Your task to perform on an android device: Open calendar and show me the first week of next month Image 0: 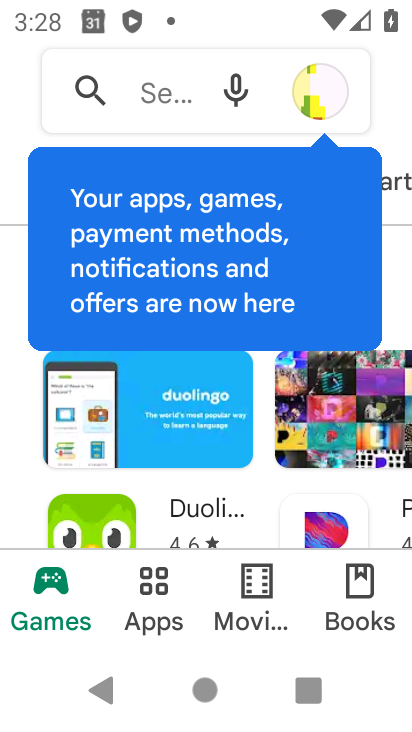
Step 0: press home button
Your task to perform on an android device: Open calendar and show me the first week of next month Image 1: 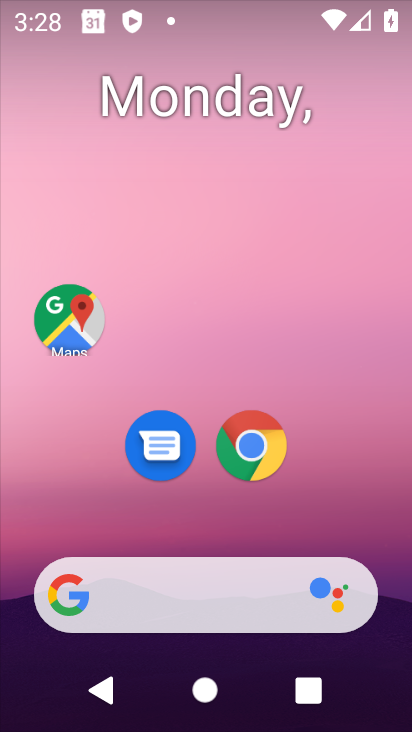
Step 1: drag from (364, 516) to (405, 85)
Your task to perform on an android device: Open calendar and show me the first week of next month Image 2: 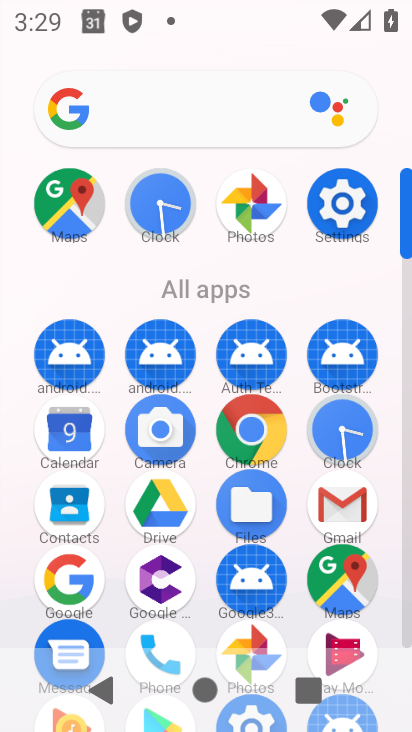
Step 2: drag from (295, 616) to (324, 428)
Your task to perform on an android device: Open calendar and show me the first week of next month Image 3: 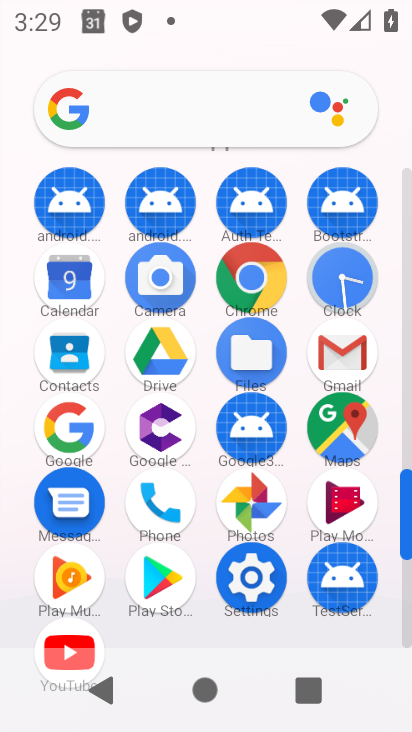
Step 3: click (81, 296)
Your task to perform on an android device: Open calendar and show me the first week of next month Image 4: 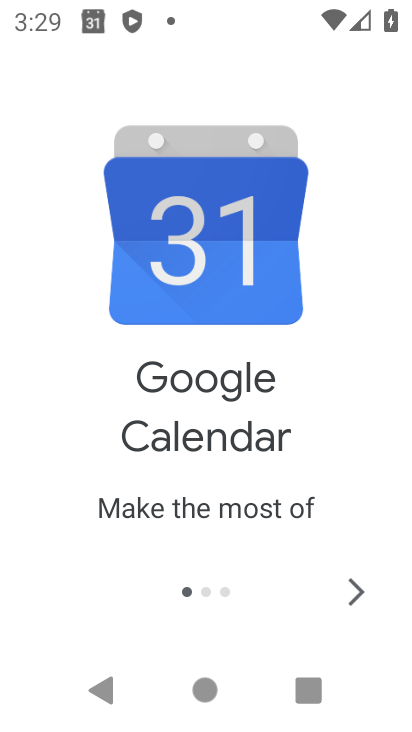
Step 4: click (339, 604)
Your task to perform on an android device: Open calendar and show me the first week of next month Image 5: 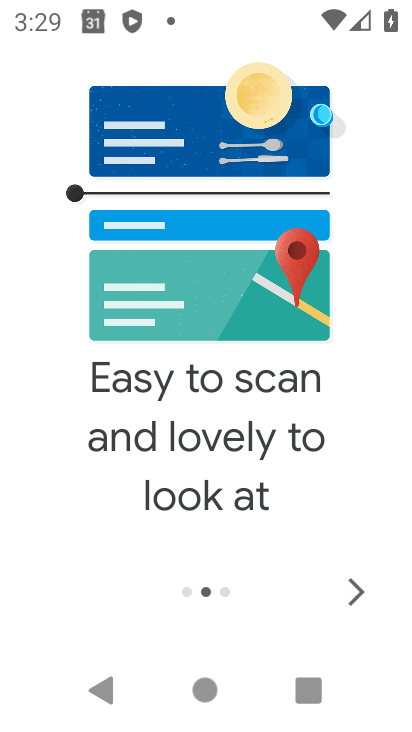
Step 5: click (339, 604)
Your task to perform on an android device: Open calendar and show me the first week of next month Image 6: 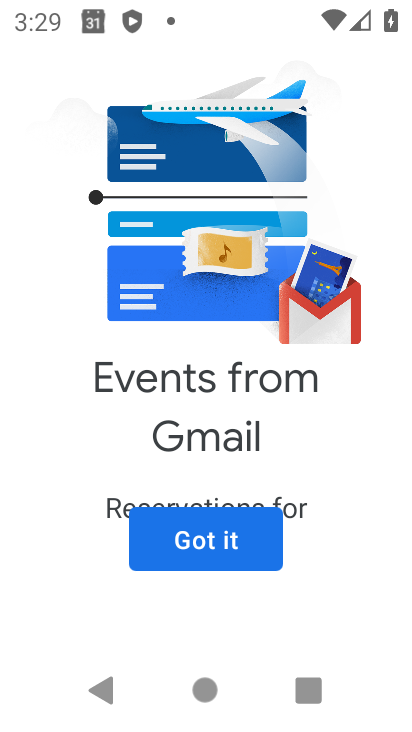
Step 6: click (257, 554)
Your task to perform on an android device: Open calendar and show me the first week of next month Image 7: 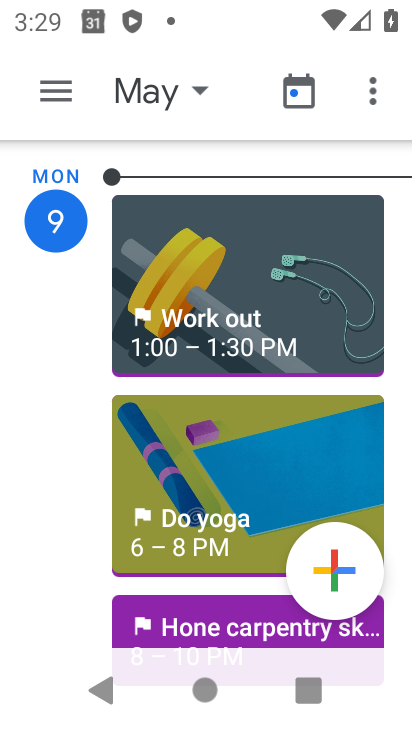
Step 7: click (193, 92)
Your task to perform on an android device: Open calendar and show me the first week of next month Image 8: 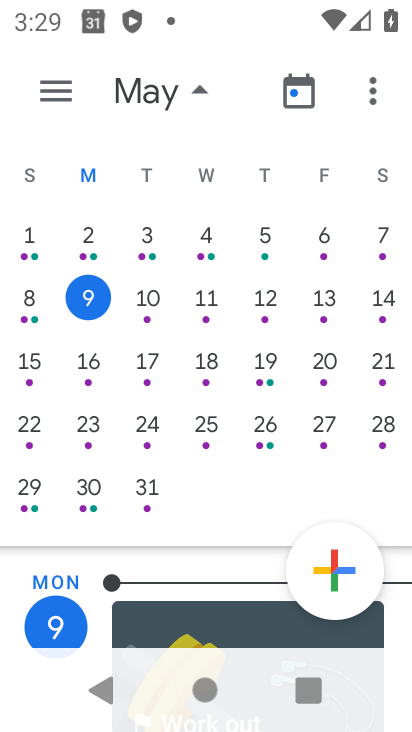
Step 8: drag from (371, 239) to (25, 370)
Your task to perform on an android device: Open calendar and show me the first week of next month Image 9: 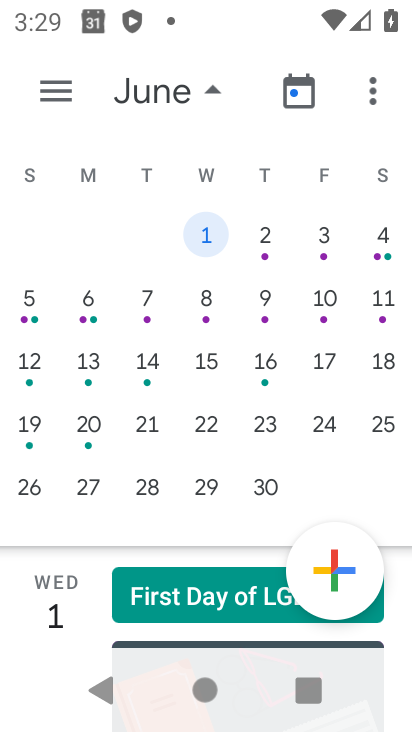
Step 9: click (202, 303)
Your task to perform on an android device: Open calendar and show me the first week of next month Image 10: 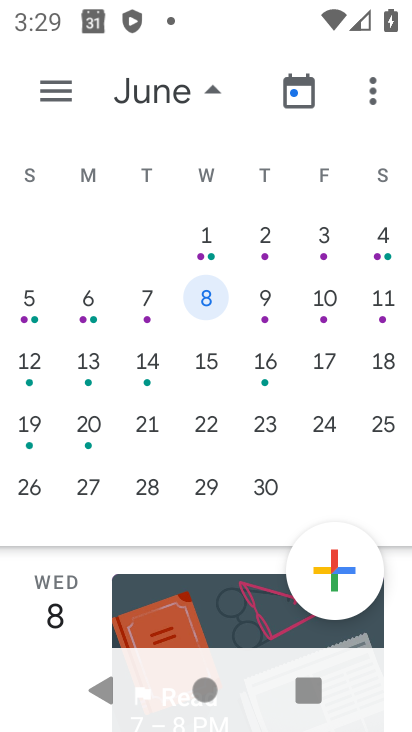
Step 10: task complete